Your task to perform on an android device: Install the News app Image 0: 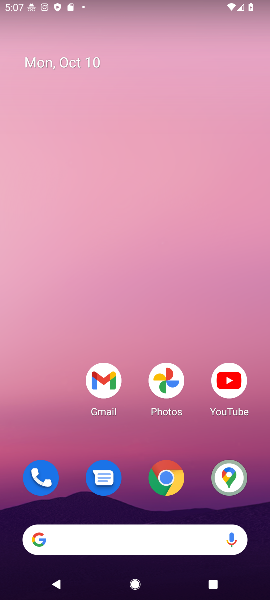
Step 0: drag from (139, 485) to (137, 139)
Your task to perform on an android device: Install the News app Image 1: 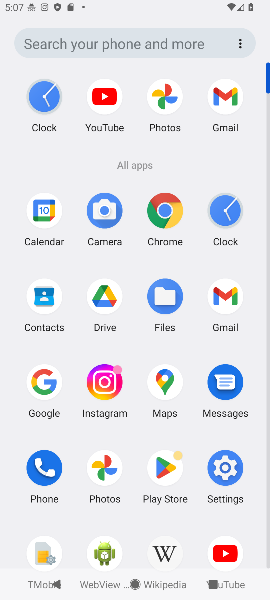
Step 1: drag from (136, 427) to (147, 368)
Your task to perform on an android device: Install the News app Image 2: 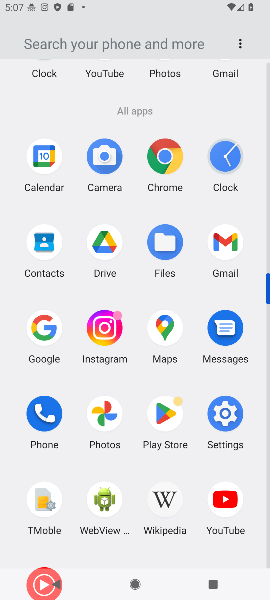
Step 2: click (169, 409)
Your task to perform on an android device: Install the News app Image 3: 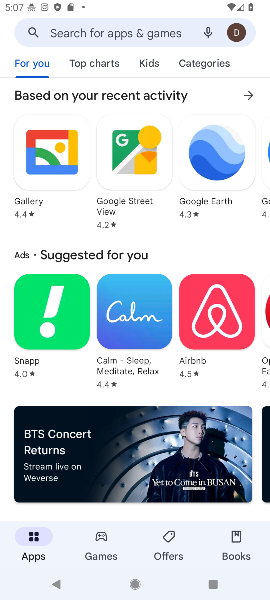
Step 3: click (119, 25)
Your task to perform on an android device: Install the News app Image 4: 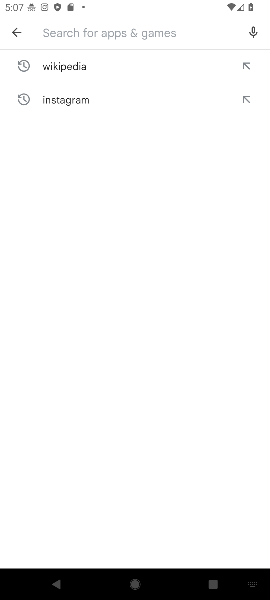
Step 4: type "news app"
Your task to perform on an android device: Install the News app Image 5: 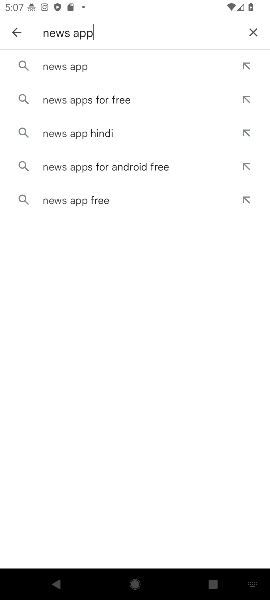
Step 5: click (130, 61)
Your task to perform on an android device: Install the News app Image 6: 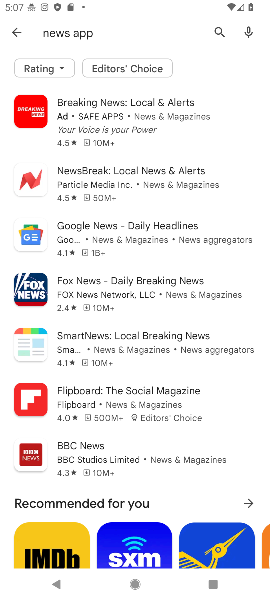
Step 6: click (67, 244)
Your task to perform on an android device: Install the News app Image 7: 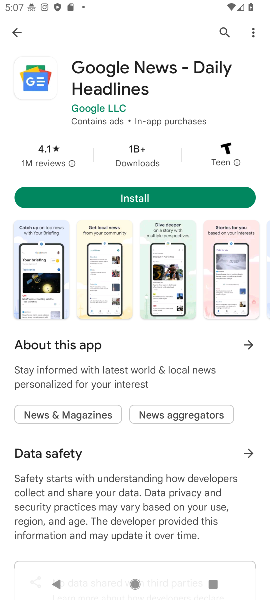
Step 7: click (103, 194)
Your task to perform on an android device: Install the News app Image 8: 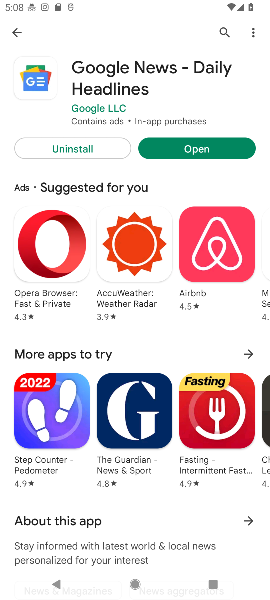
Step 8: task complete